Your task to perform on an android device: Find coffee shops on Maps Image 0: 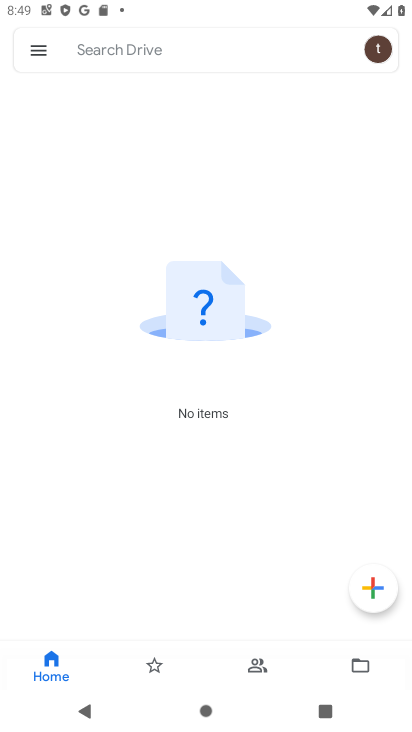
Step 0: press home button
Your task to perform on an android device: Find coffee shops on Maps Image 1: 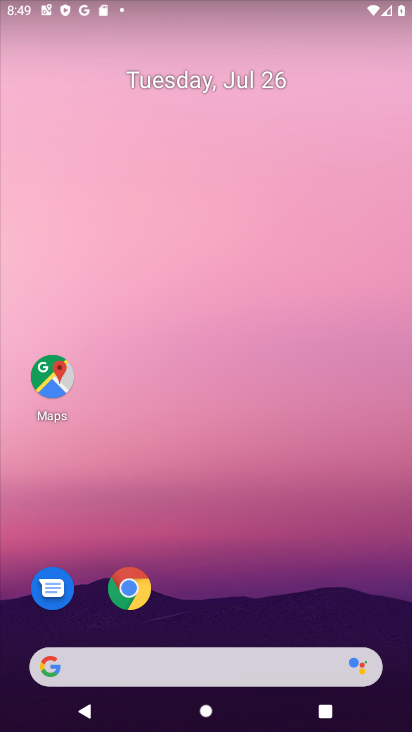
Step 1: click (49, 368)
Your task to perform on an android device: Find coffee shops on Maps Image 2: 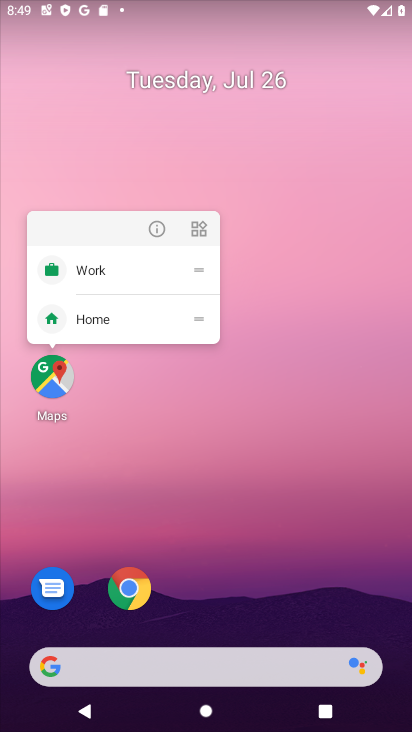
Step 2: click (43, 371)
Your task to perform on an android device: Find coffee shops on Maps Image 3: 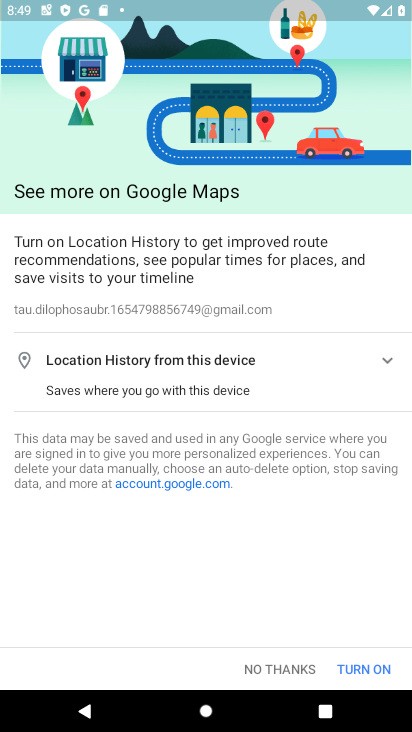
Step 3: click (370, 659)
Your task to perform on an android device: Find coffee shops on Maps Image 4: 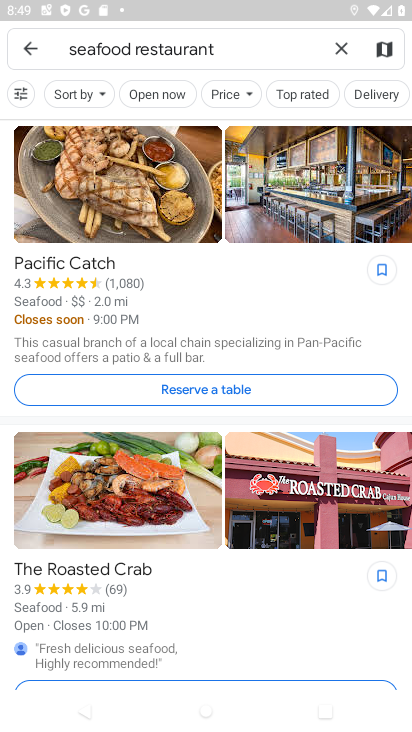
Step 4: click (333, 45)
Your task to perform on an android device: Find coffee shops on Maps Image 5: 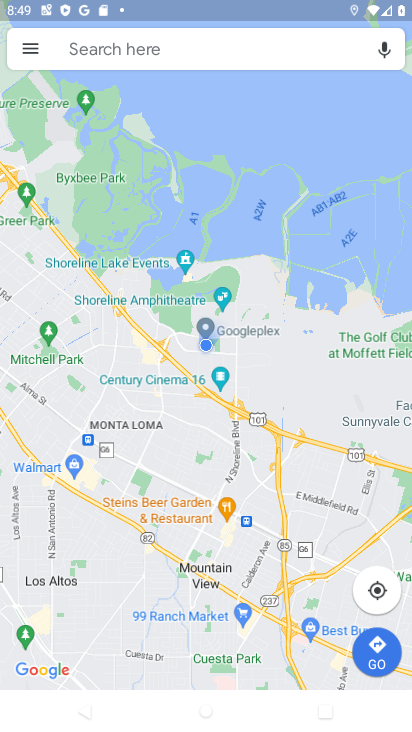
Step 5: click (97, 41)
Your task to perform on an android device: Find coffee shops on Maps Image 6: 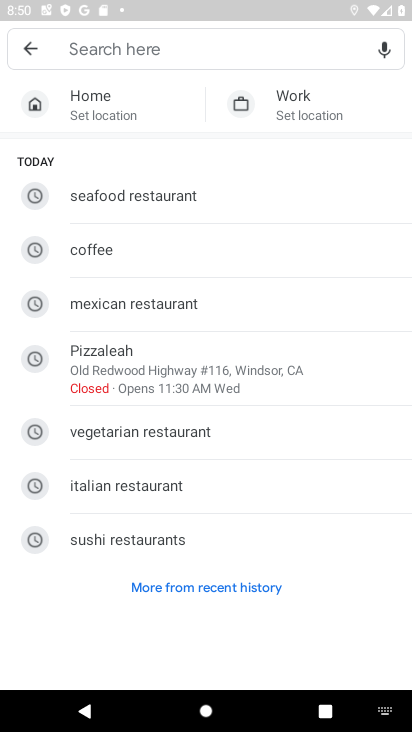
Step 6: click (106, 240)
Your task to perform on an android device: Find coffee shops on Maps Image 7: 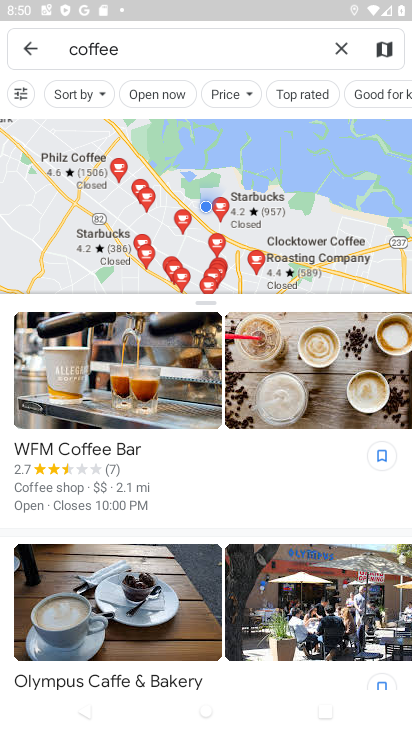
Step 7: task complete